Your task to perform on an android device: toggle priority inbox in the gmail app Image 0: 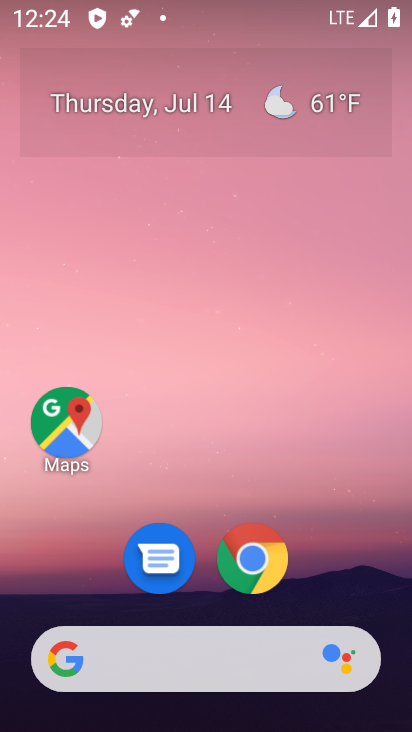
Step 0: drag from (251, 561) to (279, 23)
Your task to perform on an android device: toggle priority inbox in the gmail app Image 1: 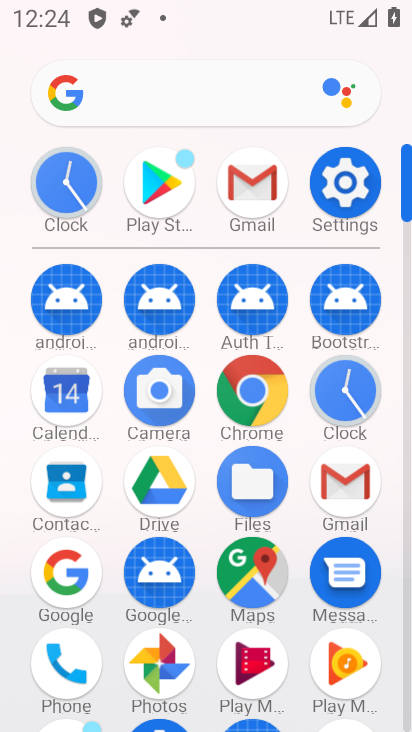
Step 1: click (249, 194)
Your task to perform on an android device: toggle priority inbox in the gmail app Image 2: 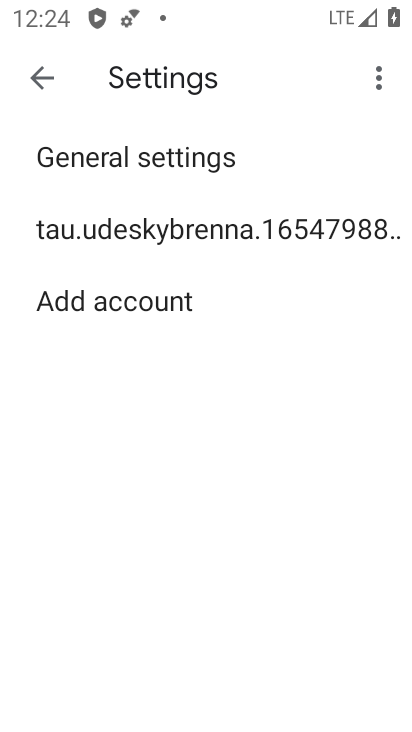
Step 2: click (175, 244)
Your task to perform on an android device: toggle priority inbox in the gmail app Image 3: 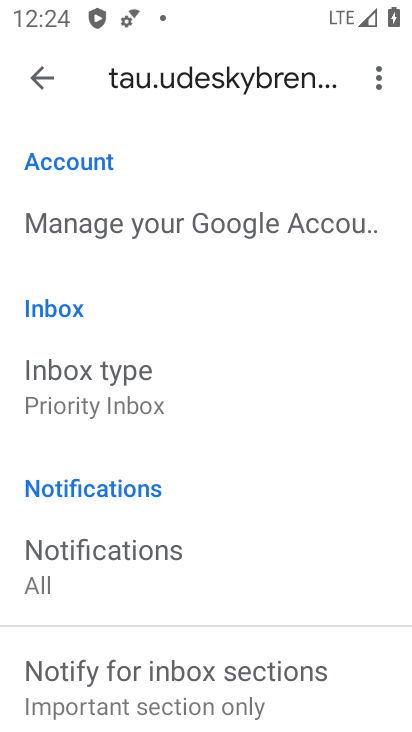
Step 3: click (100, 393)
Your task to perform on an android device: toggle priority inbox in the gmail app Image 4: 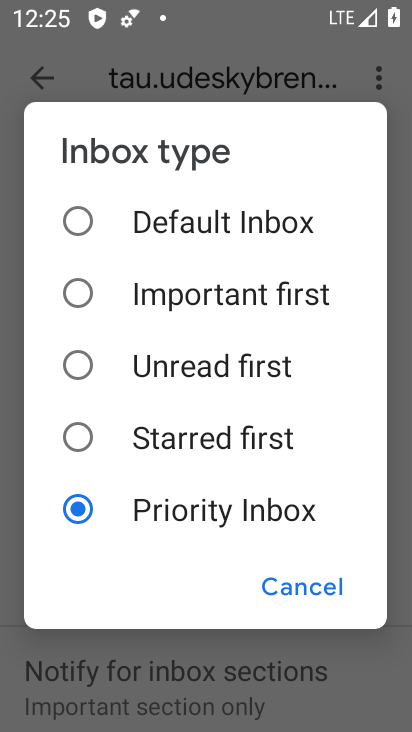
Step 4: click (82, 517)
Your task to perform on an android device: toggle priority inbox in the gmail app Image 5: 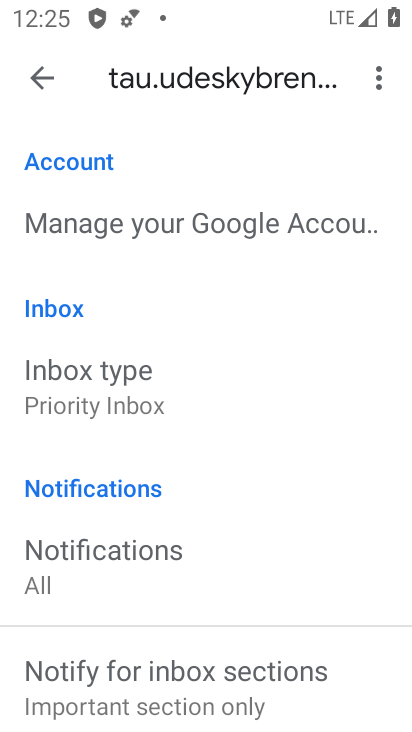
Step 5: task complete